Your task to perform on an android device: change the clock display to analog Image 0: 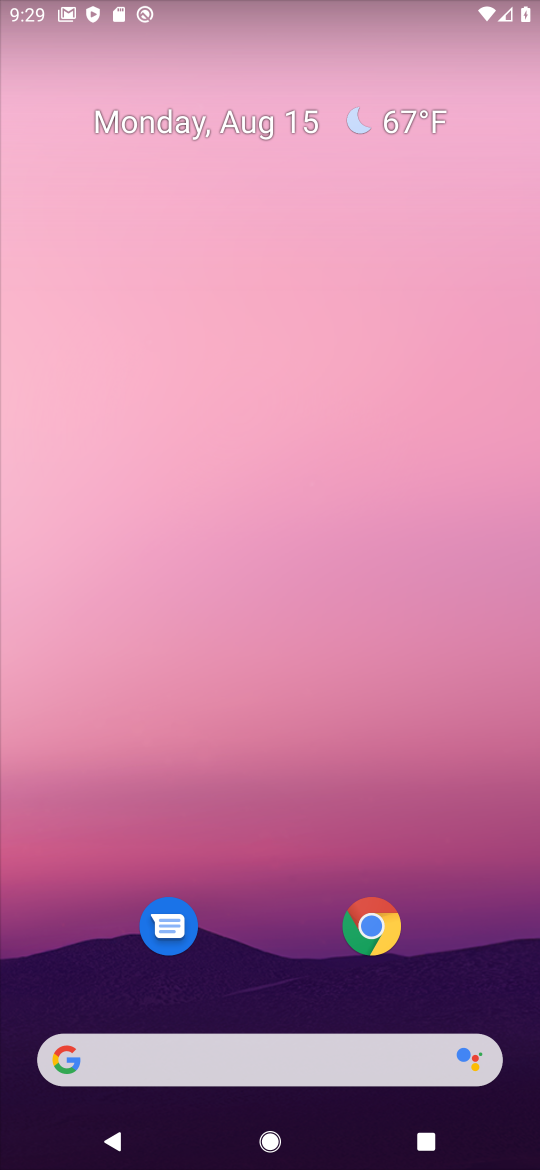
Step 0: drag from (281, 996) to (213, 27)
Your task to perform on an android device: change the clock display to analog Image 1: 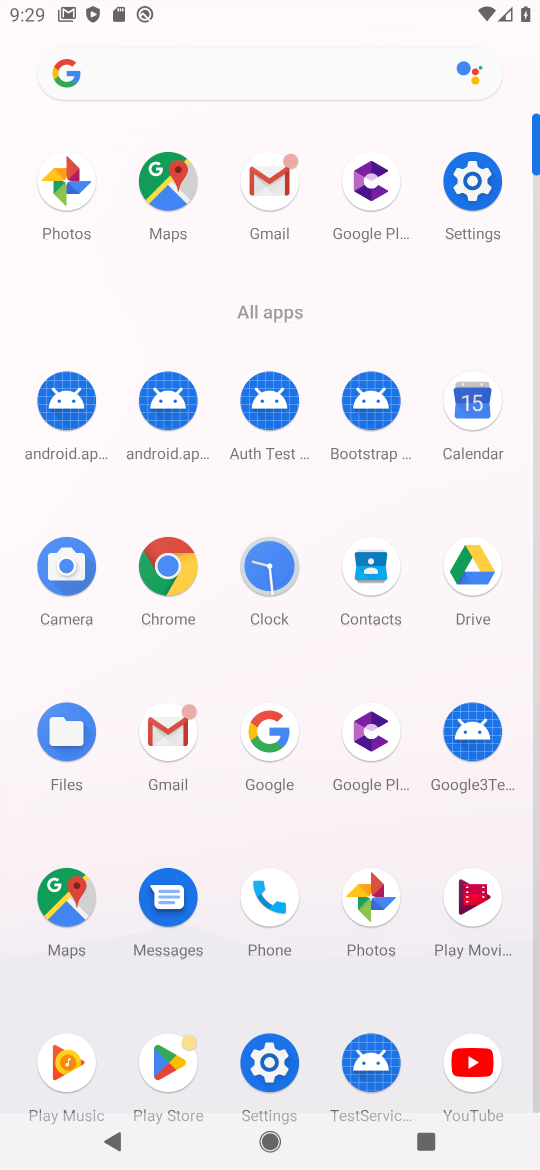
Step 1: click (278, 584)
Your task to perform on an android device: change the clock display to analog Image 2: 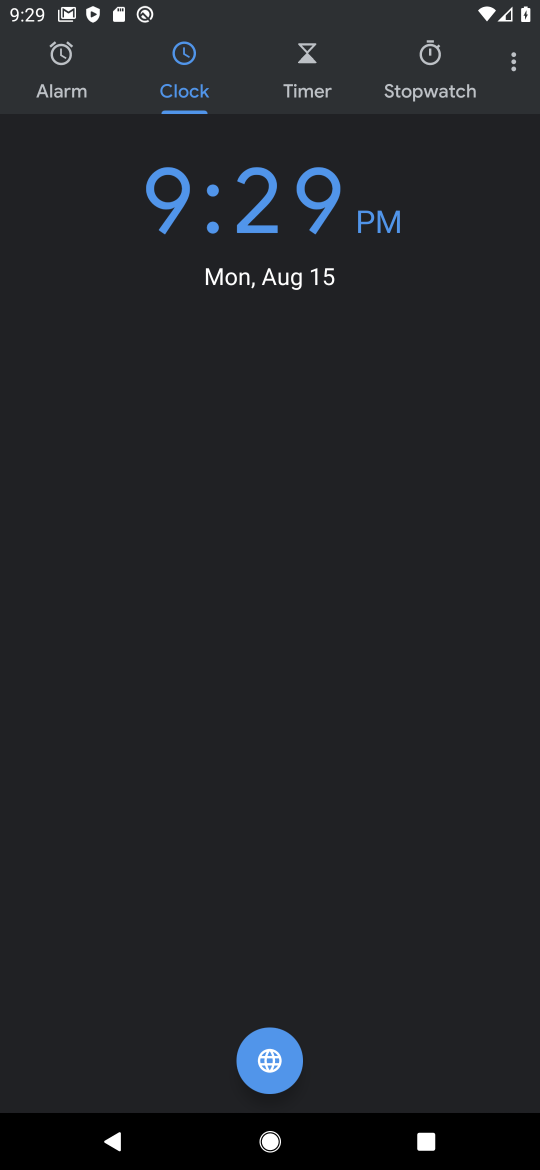
Step 2: click (511, 65)
Your task to perform on an android device: change the clock display to analog Image 3: 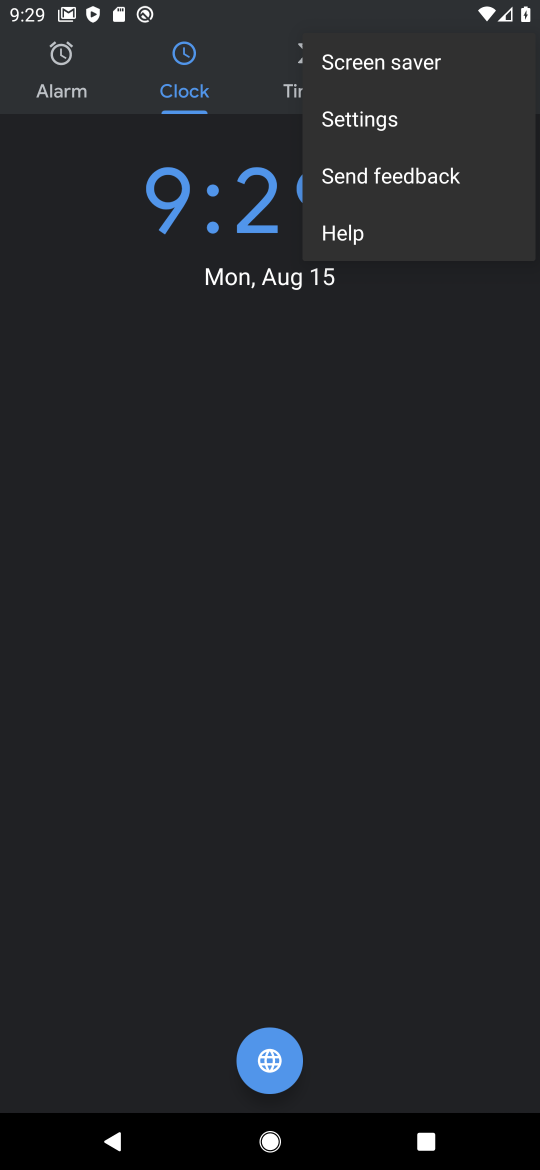
Step 3: click (366, 131)
Your task to perform on an android device: change the clock display to analog Image 4: 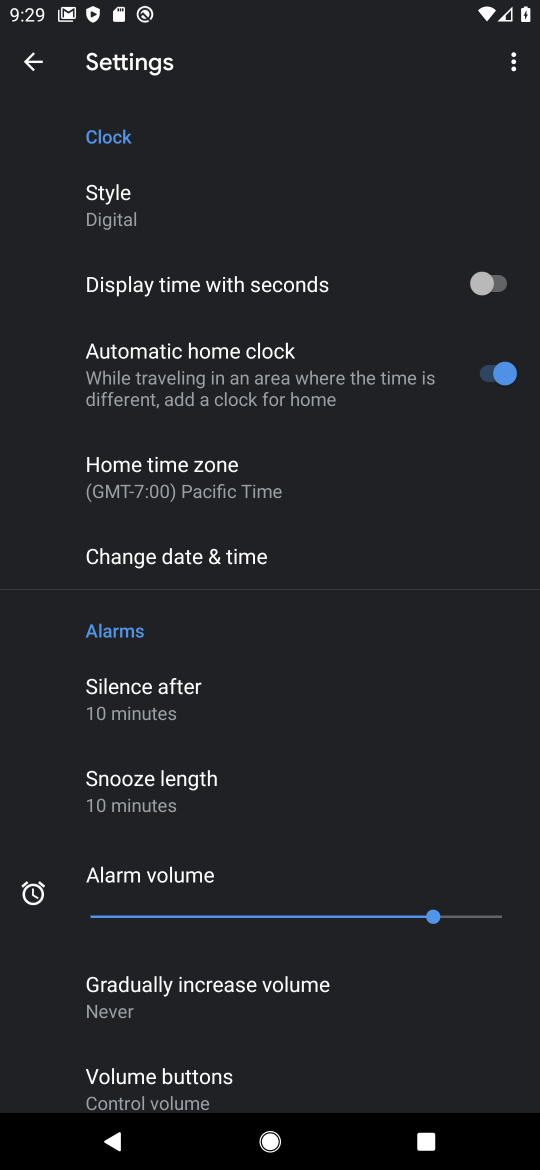
Step 4: click (119, 219)
Your task to perform on an android device: change the clock display to analog Image 5: 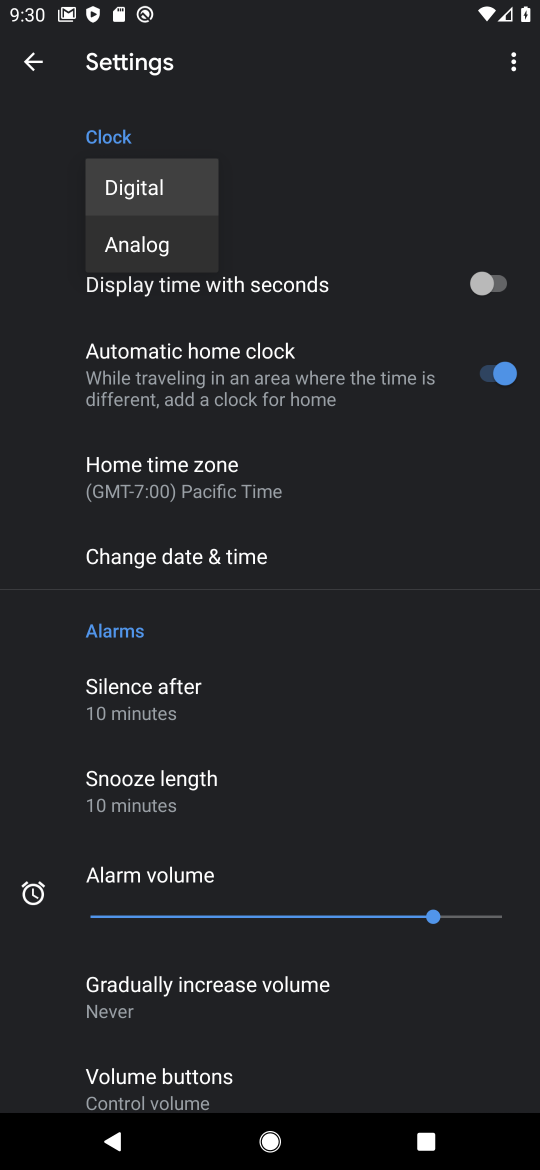
Step 5: click (135, 245)
Your task to perform on an android device: change the clock display to analog Image 6: 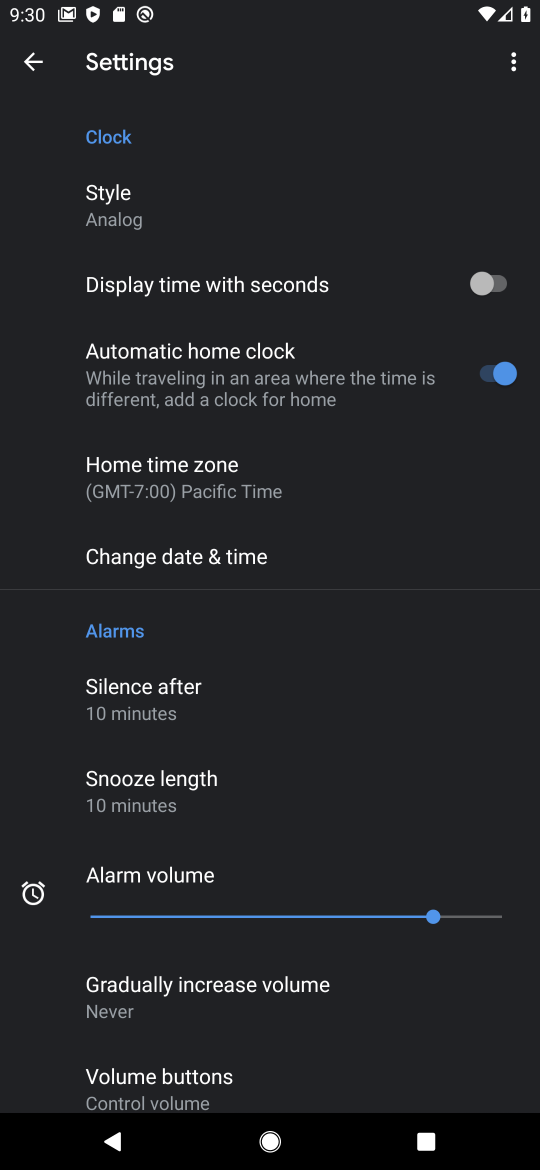
Step 6: task complete